Your task to perform on an android device: Open Chrome and go to settings Image 0: 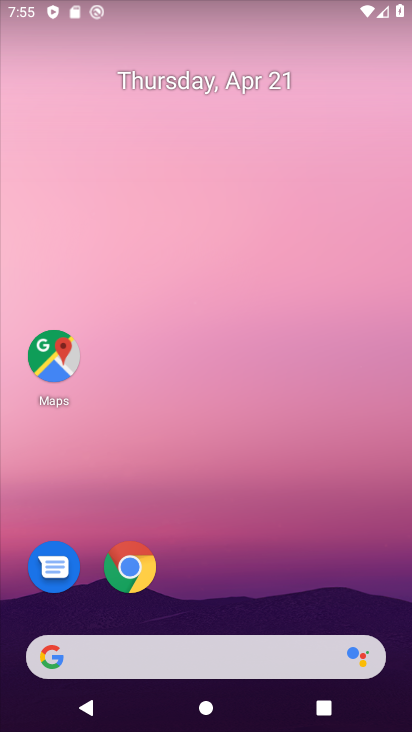
Step 0: click (137, 585)
Your task to perform on an android device: Open Chrome and go to settings Image 1: 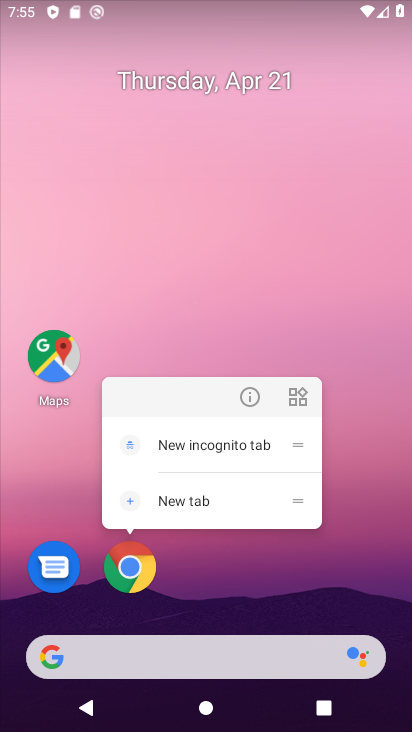
Step 1: click (138, 562)
Your task to perform on an android device: Open Chrome and go to settings Image 2: 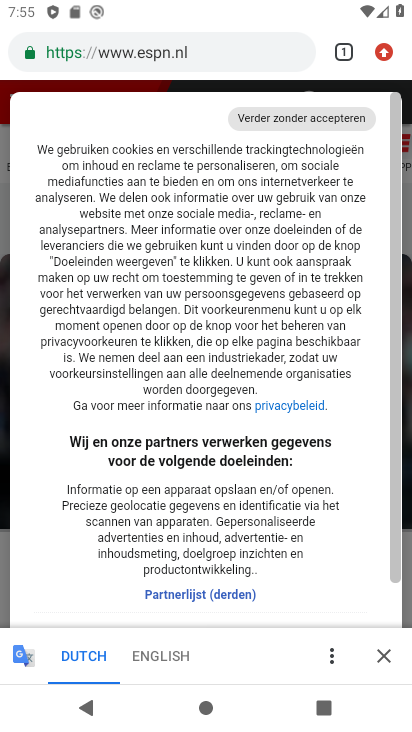
Step 2: task complete